Your task to perform on an android device: turn off translation in the chrome app Image 0: 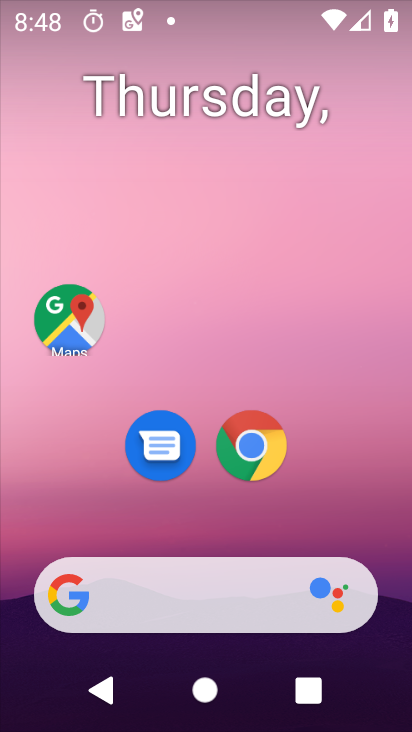
Step 0: click (251, 441)
Your task to perform on an android device: turn off translation in the chrome app Image 1: 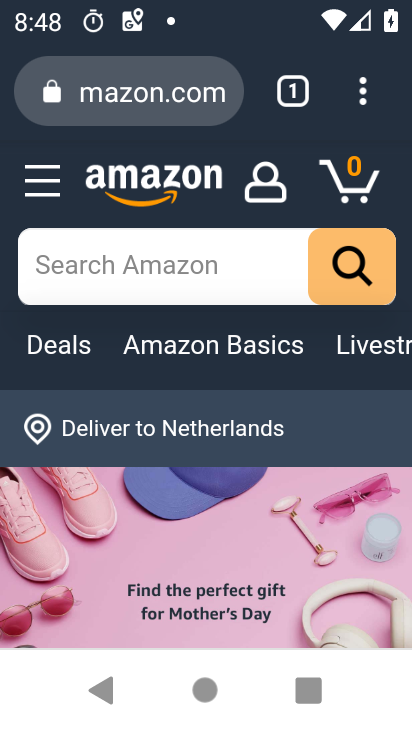
Step 1: click (365, 81)
Your task to perform on an android device: turn off translation in the chrome app Image 2: 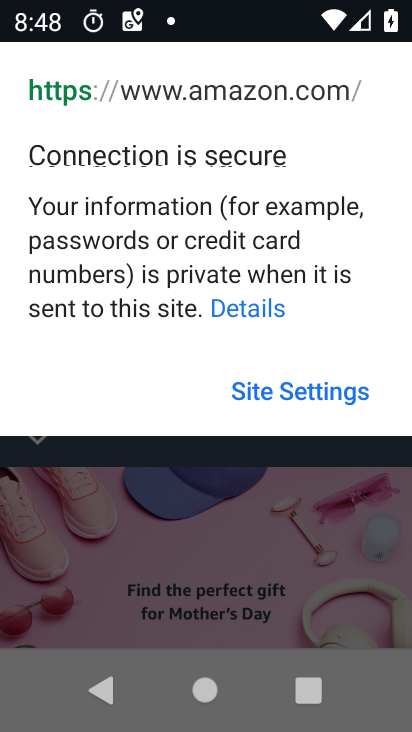
Step 2: click (318, 394)
Your task to perform on an android device: turn off translation in the chrome app Image 3: 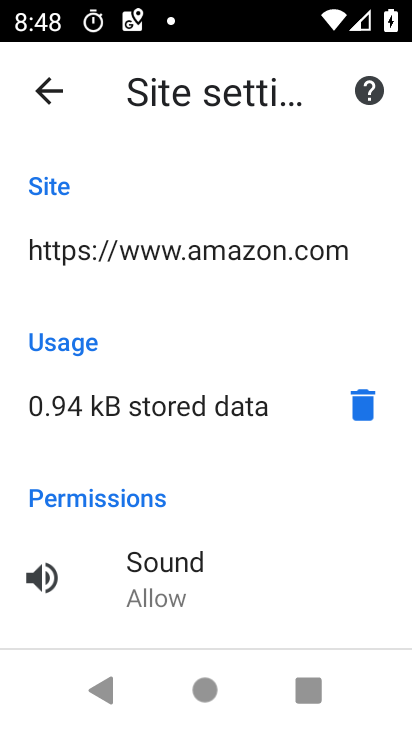
Step 3: drag from (206, 589) to (282, 277)
Your task to perform on an android device: turn off translation in the chrome app Image 4: 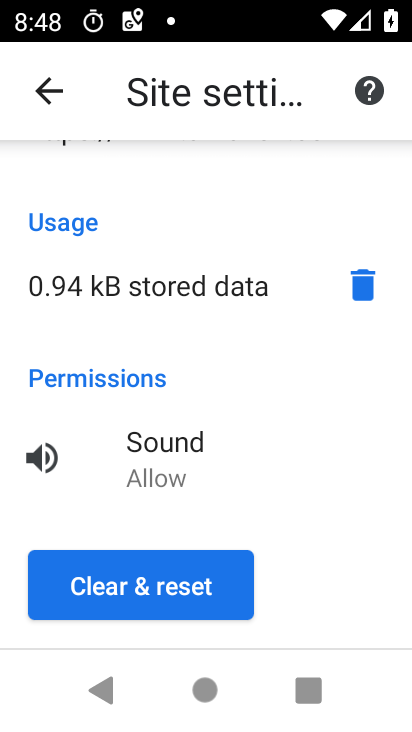
Step 4: press back button
Your task to perform on an android device: turn off translation in the chrome app Image 5: 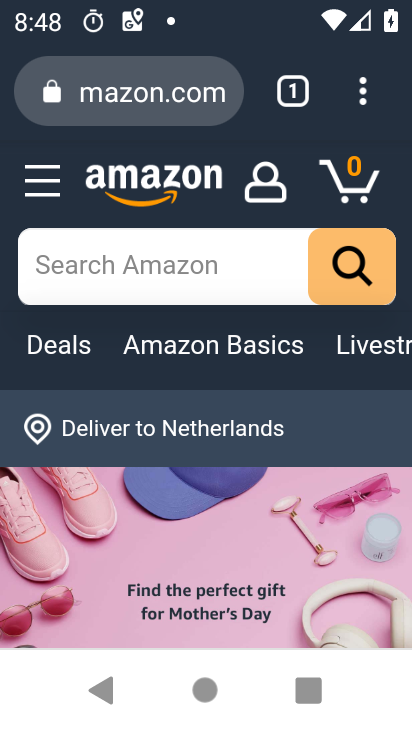
Step 5: press home button
Your task to perform on an android device: turn off translation in the chrome app Image 6: 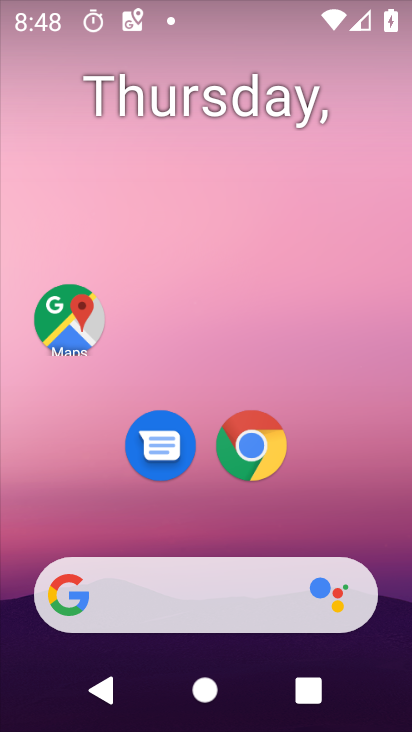
Step 6: click (245, 454)
Your task to perform on an android device: turn off translation in the chrome app Image 7: 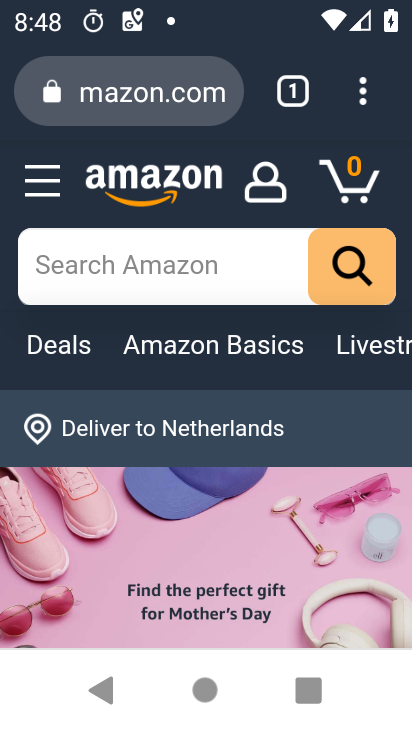
Step 7: press back button
Your task to perform on an android device: turn off translation in the chrome app Image 8: 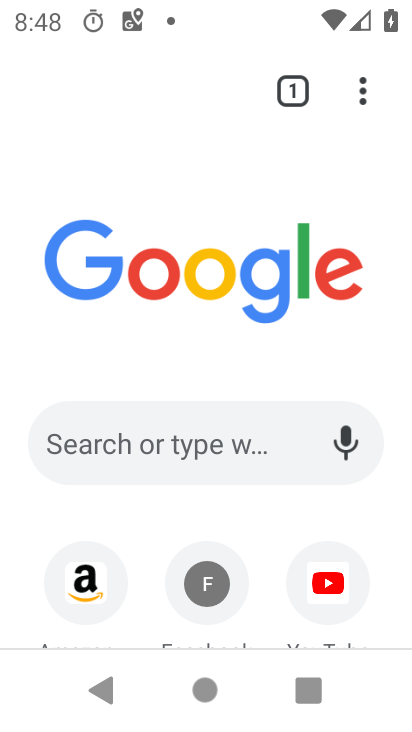
Step 8: click (359, 95)
Your task to perform on an android device: turn off translation in the chrome app Image 9: 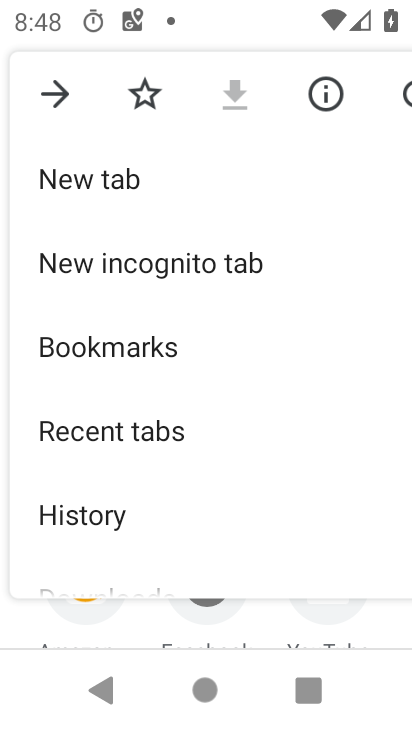
Step 9: drag from (150, 532) to (206, 247)
Your task to perform on an android device: turn off translation in the chrome app Image 10: 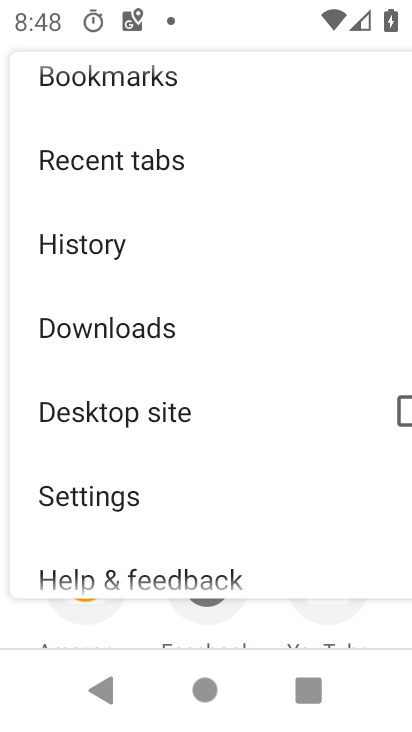
Step 10: drag from (130, 515) to (200, 139)
Your task to perform on an android device: turn off translation in the chrome app Image 11: 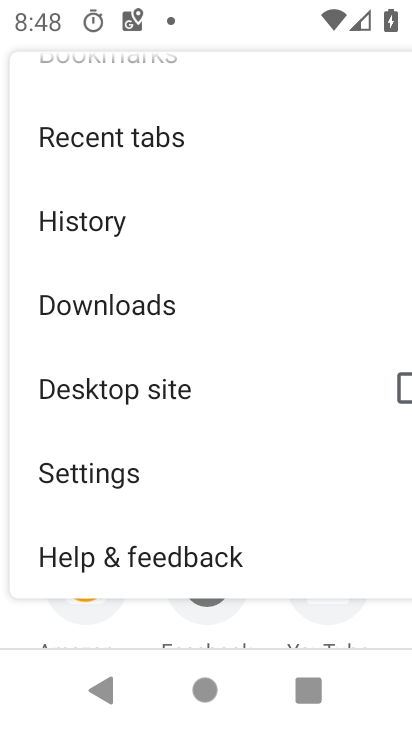
Step 11: click (87, 467)
Your task to perform on an android device: turn off translation in the chrome app Image 12: 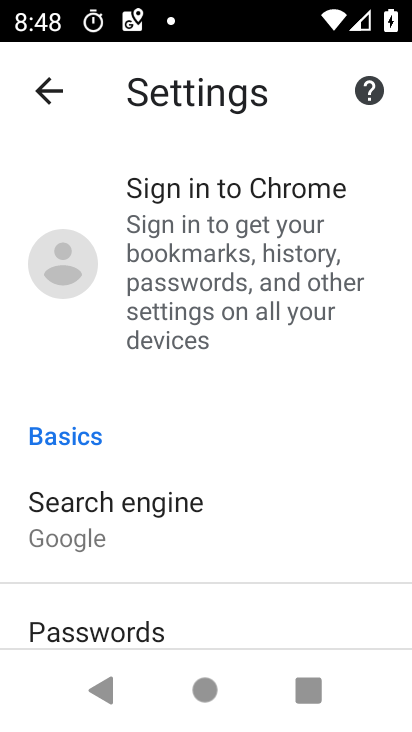
Step 12: drag from (193, 559) to (265, 230)
Your task to perform on an android device: turn off translation in the chrome app Image 13: 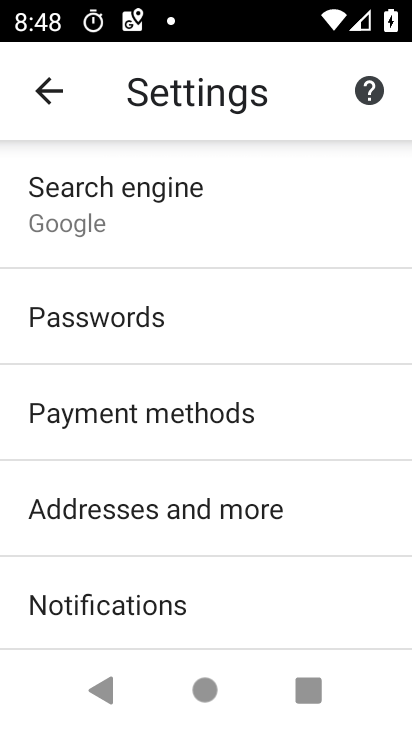
Step 13: drag from (239, 563) to (297, 240)
Your task to perform on an android device: turn off translation in the chrome app Image 14: 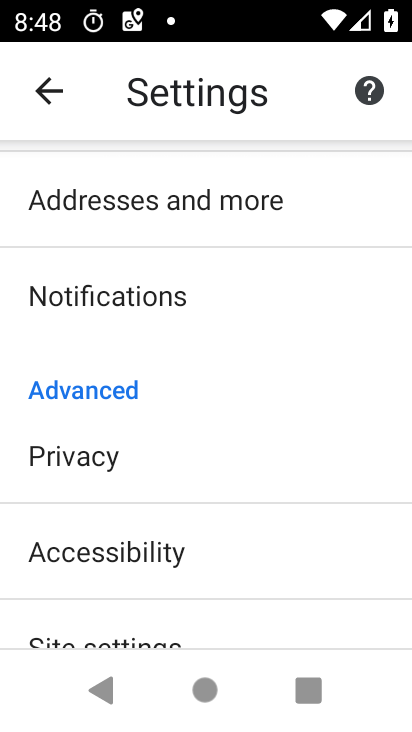
Step 14: drag from (157, 587) to (215, 308)
Your task to perform on an android device: turn off translation in the chrome app Image 15: 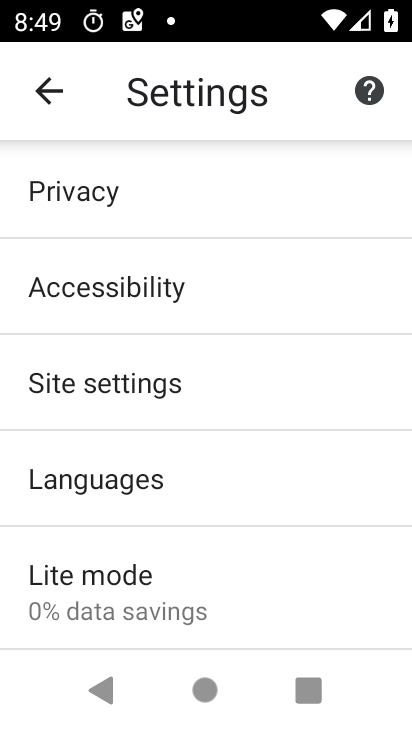
Step 15: click (127, 484)
Your task to perform on an android device: turn off translation in the chrome app Image 16: 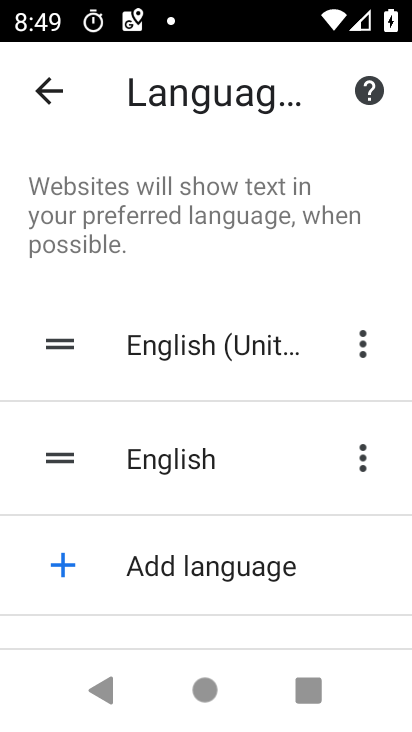
Step 16: drag from (268, 276) to (229, 542)
Your task to perform on an android device: turn off translation in the chrome app Image 17: 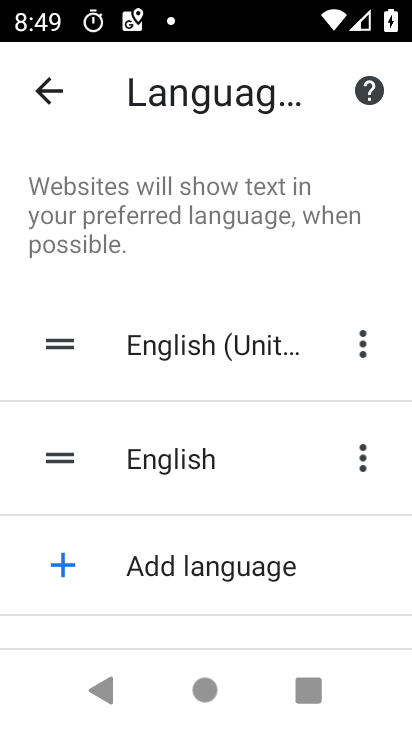
Step 17: drag from (224, 505) to (263, 216)
Your task to perform on an android device: turn off translation in the chrome app Image 18: 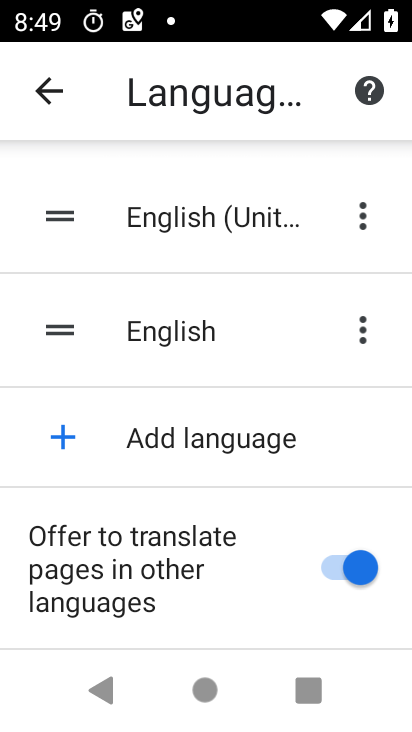
Step 18: drag from (288, 516) to (313, 256)
Your task to perform on an android device: turn off translation in the chrome app Image 19: 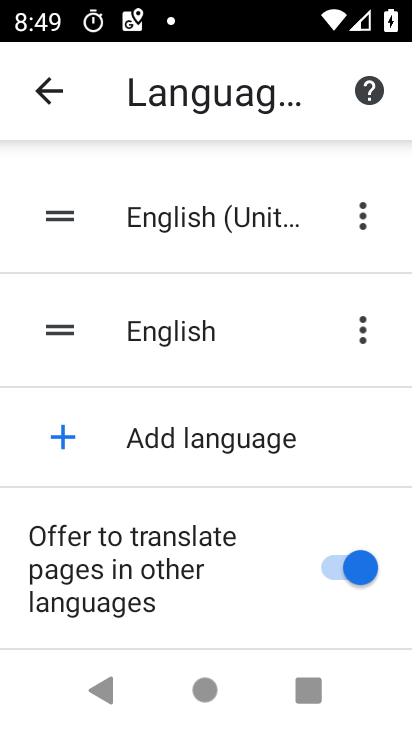
Step 19: click (349, 574)
Your task to perform on an android device: turn off translation in the chrome app Image 20: 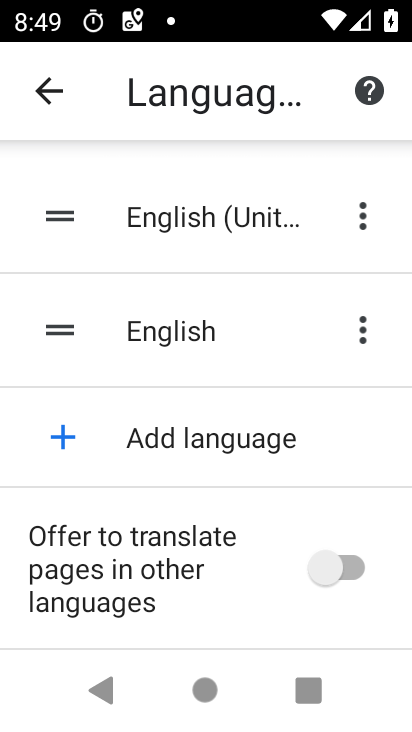
Step 20: task complete